Your task to perform on an android device: turn on location history Image 0: 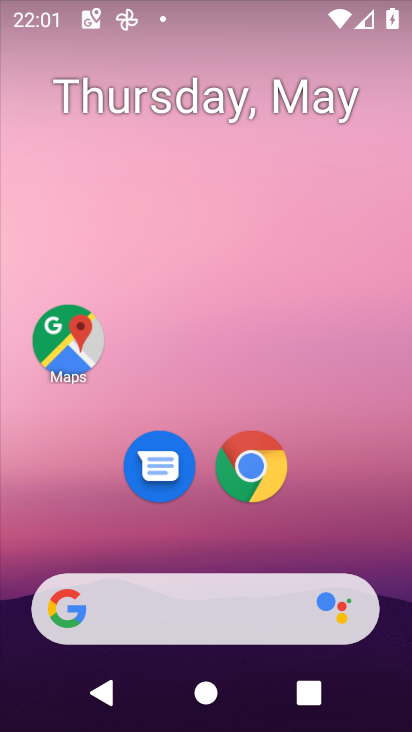
Step 0: drag from (366, 522) to (338, 109)
Your task to perform on an android device: turn on location history Image 1: 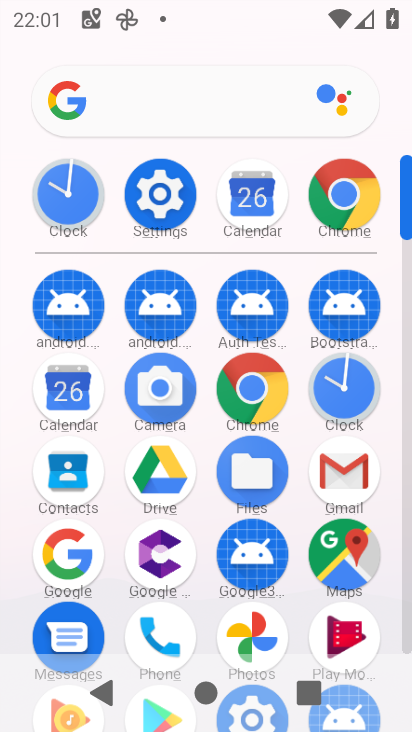
Step 1: click (154, 224)
Your task to perform on an android device: turn on location history Image 2: 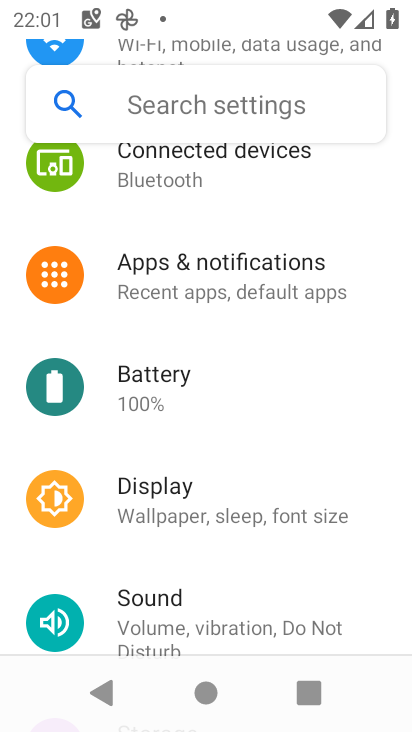
Step 2: drag from (234, 572) to (281, 189)
Your task to perform on an android device: turn on location history Image 3: 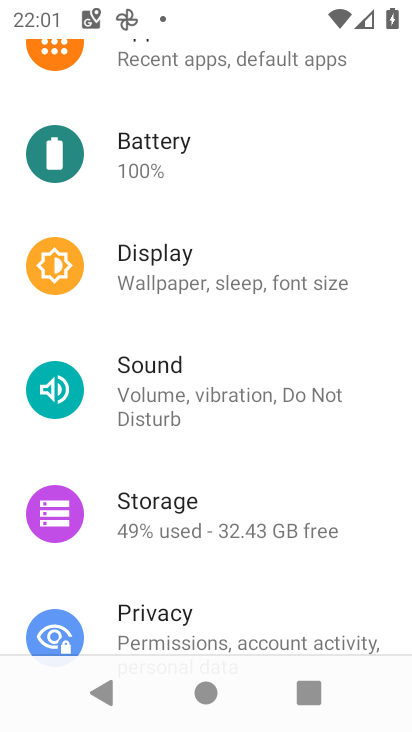
Step 3: drag from (183, 598) to (206, 397)
Your task to perform on an android device: turn on location history Image 4: 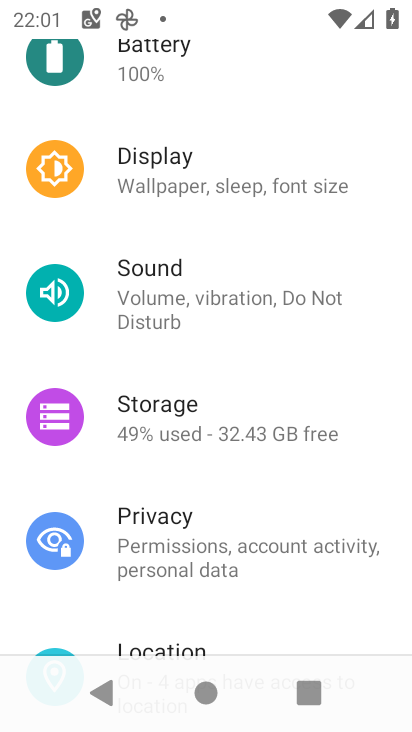
Step 4: click (188, 625)
Your task to perform on an android device: turn on location history Image 5: 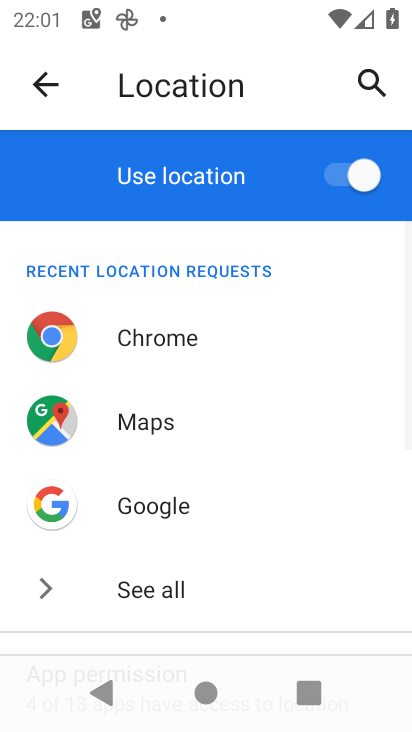
Step 5: drag from (148, 630) to (188, 210)
Your task to perform on an android device: turn on location history Image 6: 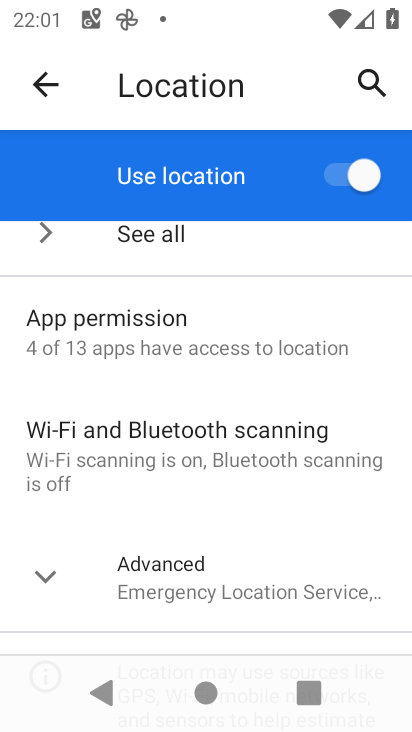
Step 6: drag from (198, 539) to (245, 315)
Your task to perform on an android device: turn on location history Image 7: 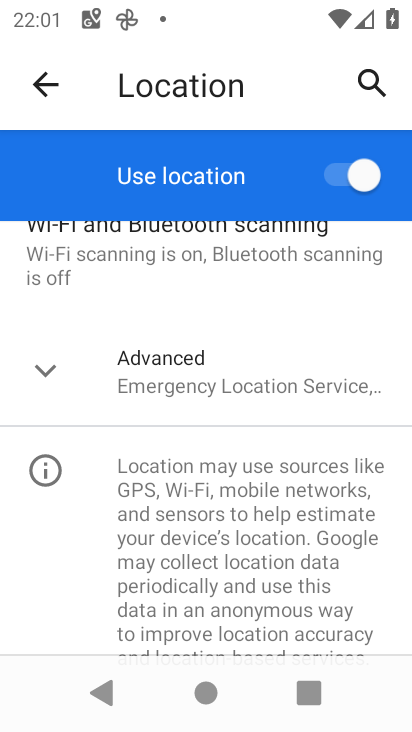
Step 7: click (198, 392)
Your task to perform on an android device: turn on location history Image 8: 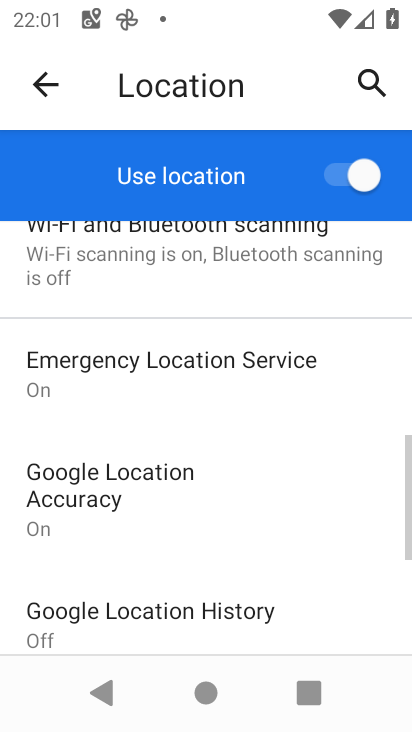
Step 8: drag from (184, 592) to (205, 399)
Your task to perform on an android device: turn on location history Image 9: 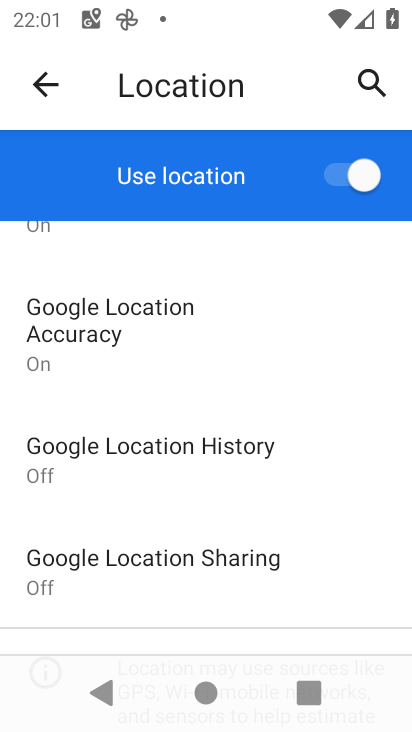
Step 9: click (122, 450)
Your task to perform on an android device: turn on location history Image 10: 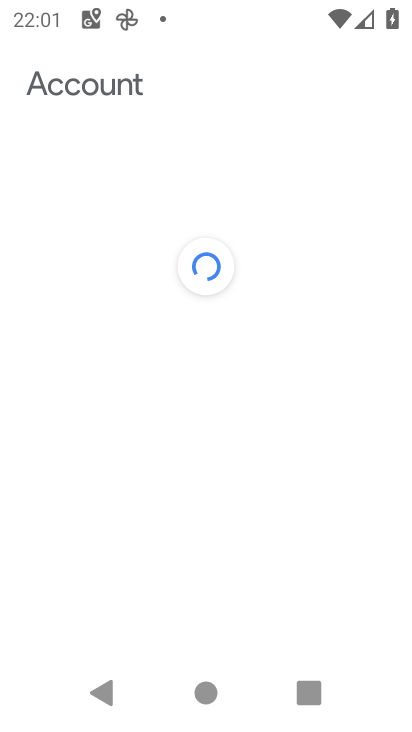
Step 10: task complete